Your task to perform on an android device: Go to Android settings Image 0: 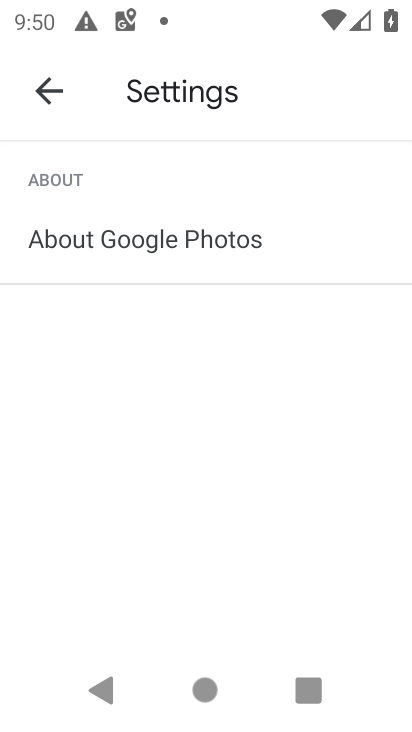
Step 0: press home button
Your task to perform on an android device: Go to Android settings Image 1: 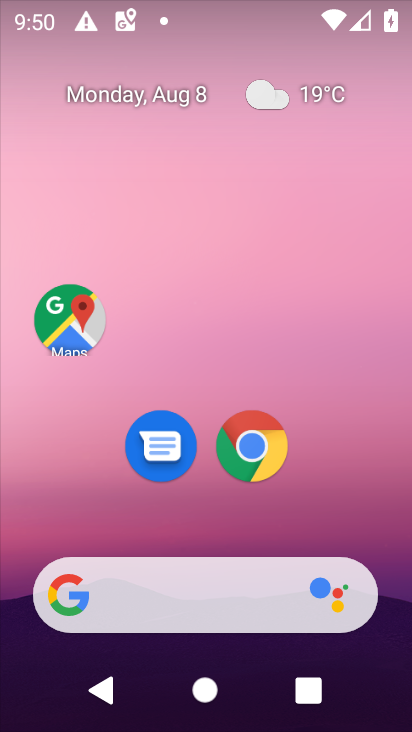
Step 1: drag from (389, 615) to (351, 85)
Your task to perform on an android device: Go to Android settings Image 2: 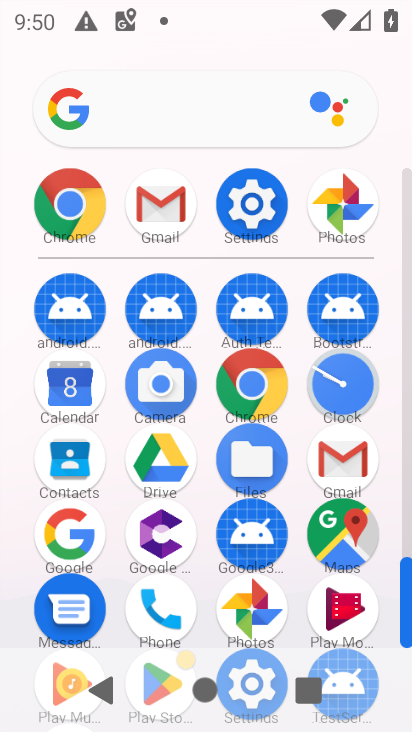
Step 2: click (407, 538)
Your task to perform on an android device: Go to Android settings Image 3: 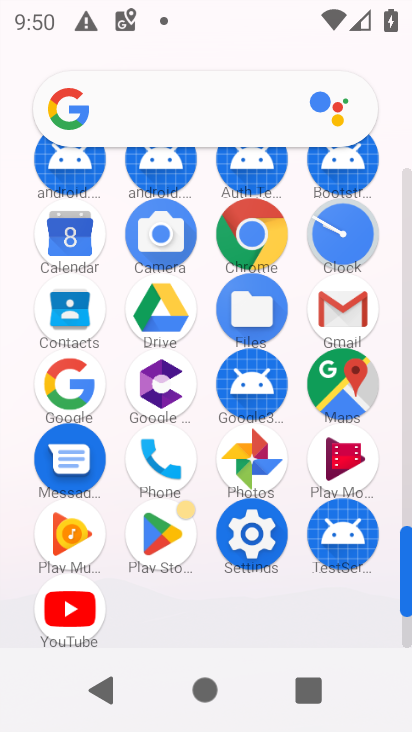
Step 3: click (252, 537)
Your task to perform on an android device: Go to Android settings Image 4: 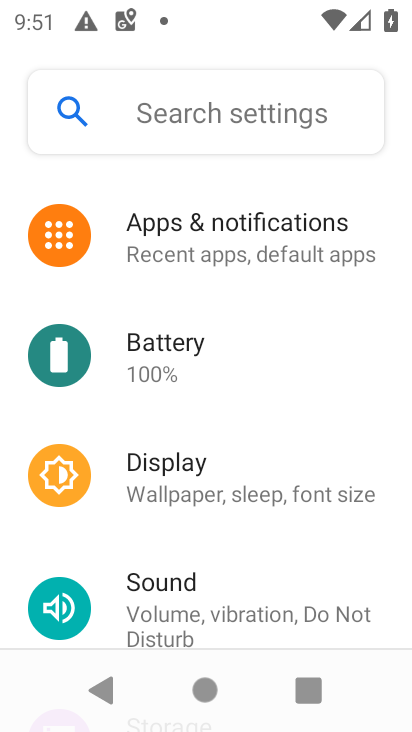
Step 4: drag from (315, 556) to (326, 191)
Your task to perform on an android device: Go to Android settings Image 5: 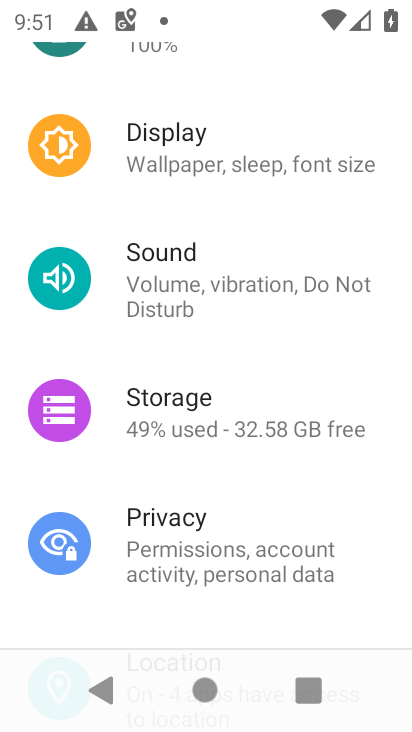
Step 5: drag from (301, 528) to (283, 133)
Your task to perform on an android device: Go to Android settings Image 6: 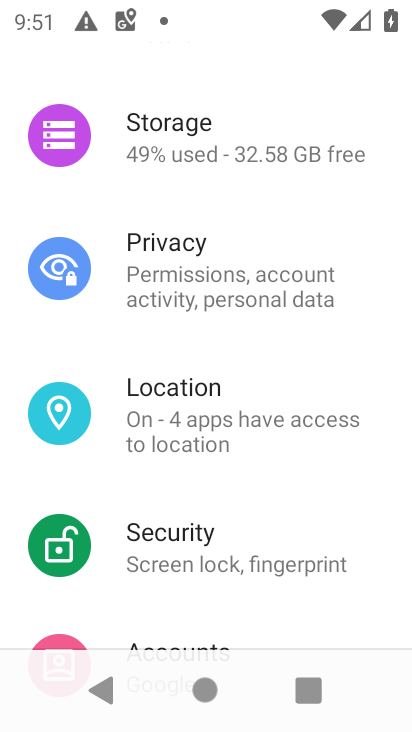
Step 6: drag from (240, 551) to (266, 262)
Your task to perform on an android device: Go to Android settings Image 7: 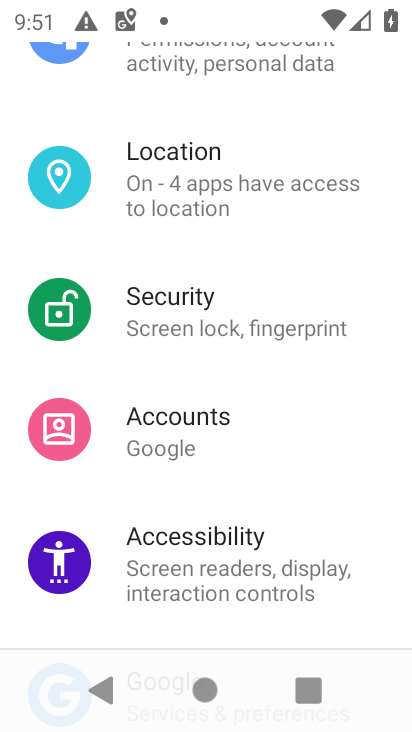
Step 7: drag from (259, 563) to (263, 189)
Your task to perform on an android device: Go to Android settings Image 8: 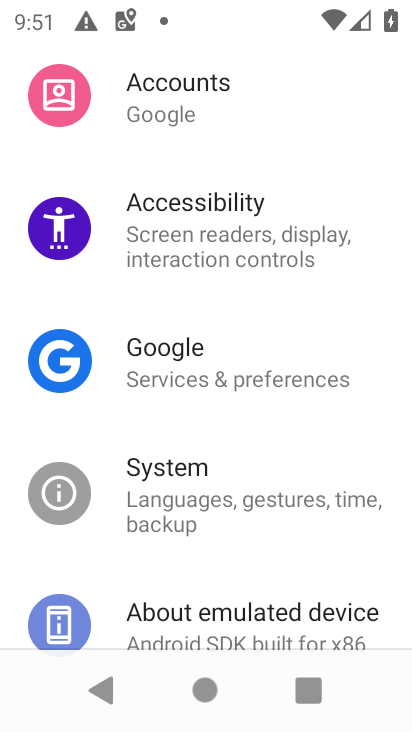
Step 8: drag from (255, 570) to (264, 199)
Your task to perform on an android device: Go to Android settings Image 9: 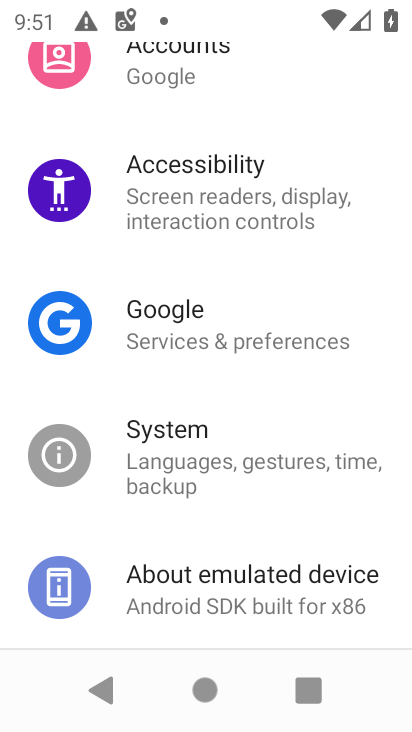
Step 9: click (197, 591)
Your task to perform on an android device: Go to Android settings Image 10: 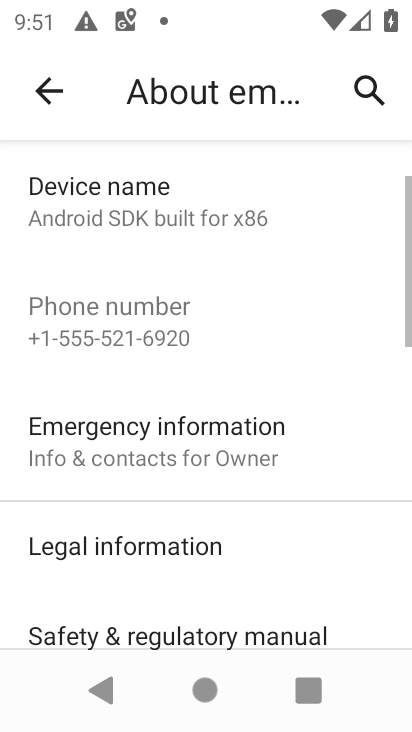
Step 10: task complete